Your task to perform on an android device: open app "DuckDuckGo Privacy Browser" (install if not already installed) Image 0: 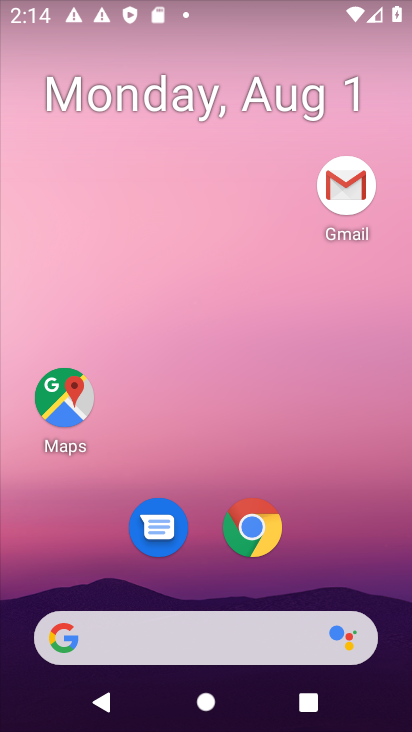
Step 0: drag from (225, 632) to (19, 100)
Your task to perform on an android device: open app "DuckDuckGo Privacy Browser" (install if not already installed) Image 1: 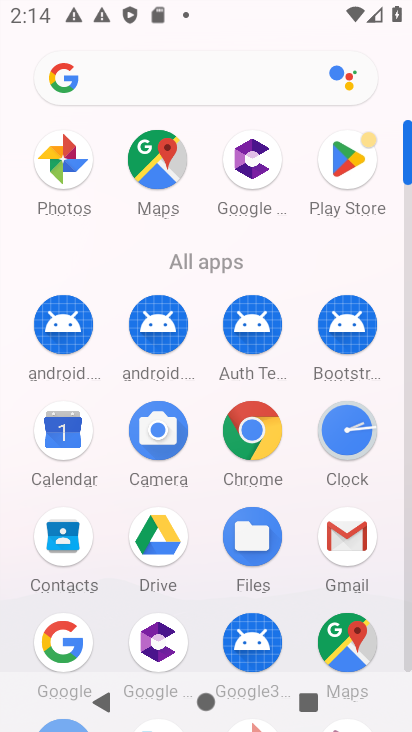
Step 1: click (349, 145)
Your task to perform on an android device: open app "DuckDuckGo Privacy Browser" (install if not already installed) Image 2: 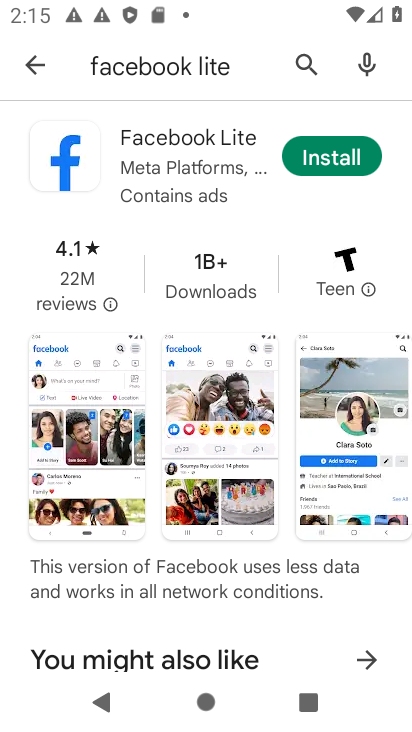
Step 2: click (301, 51)
Your task to perform on an android device: open app "DuckDuckGo Privacy Browser" (install if not already installed) Image 3: 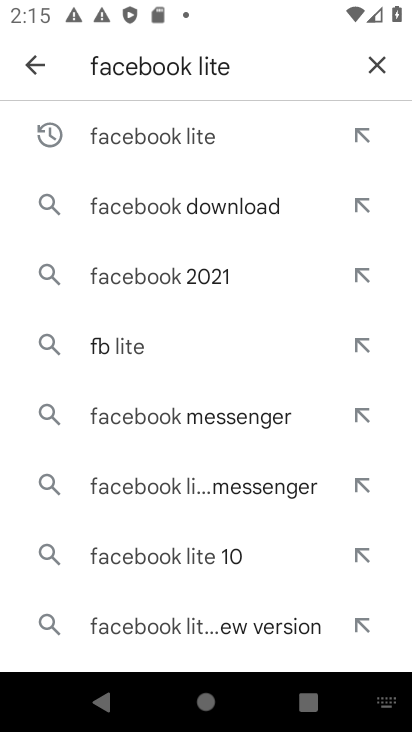
Step 3: click (373, 60)
Your task to perform on an android device: open app "DuckDuckGo Privacy Browser" (install if not already installed) Image 4: 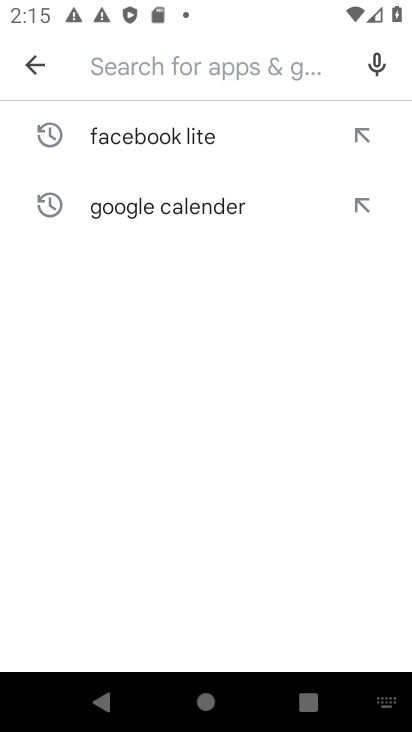
Step 4: type "duckduckgo privacy browser"
Your task to perform on an android device: open app "DuckDuckGo Privacy Browser" (install if not already installed) Image 5: 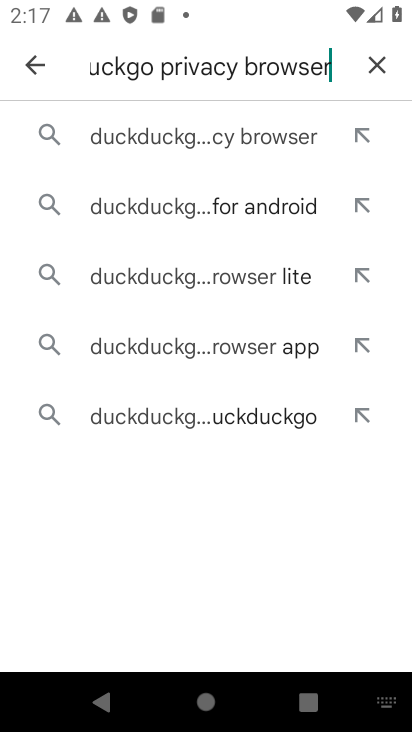
Step 5: click (243, 130)
Your task to perform on an android device: open app "DuckDuckGo Privacy Browser" (install if not already installed) Image 6: 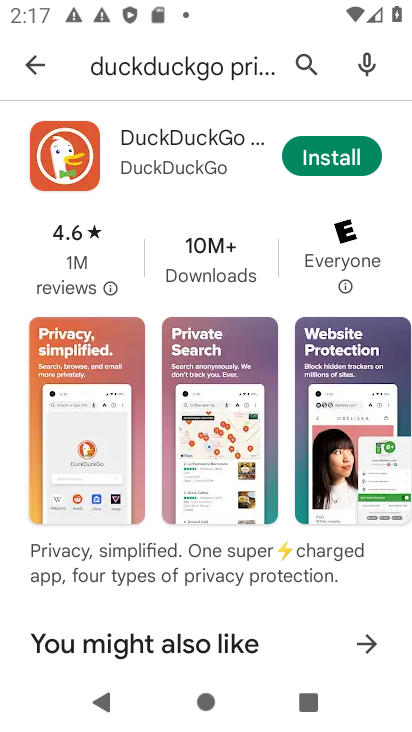
Step 6: click (359, 150)
Your task to perform on an android device: open app "DuckDuckGo Privacy Browser" (install if not already installed) Image 7: 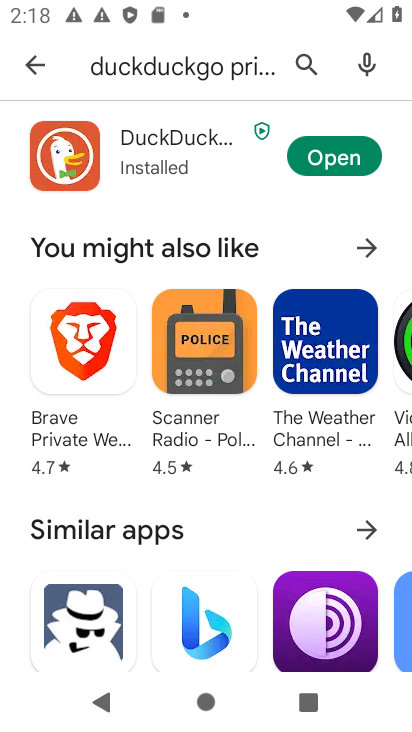
Step 7: click (358, 155)
Your task to perform on an android device: open app "DuckDuckGo Privacy Browser" (install if not already installed) Image 8: 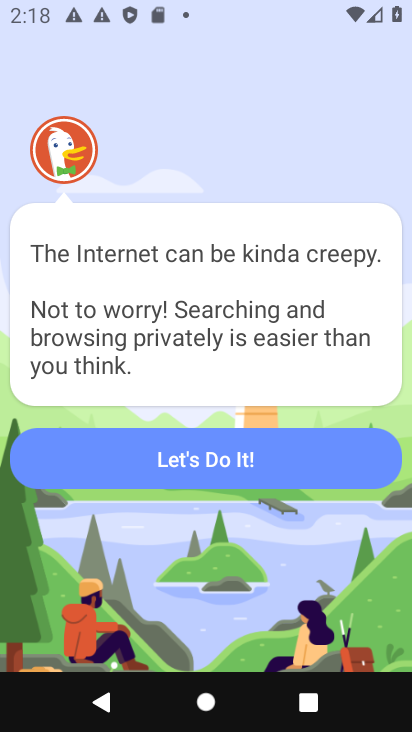
Step 8: task complete